Your task to perform on an android device: Go to Amazon Image 0: 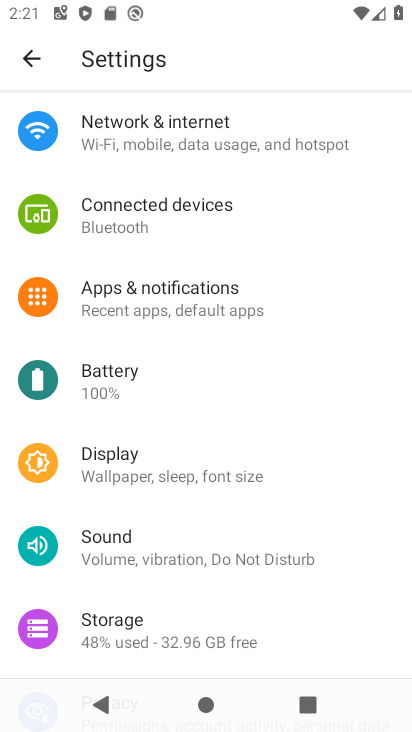
Step 0: press home button
Your task to perform on an android device: Go to Amazon Image 1: 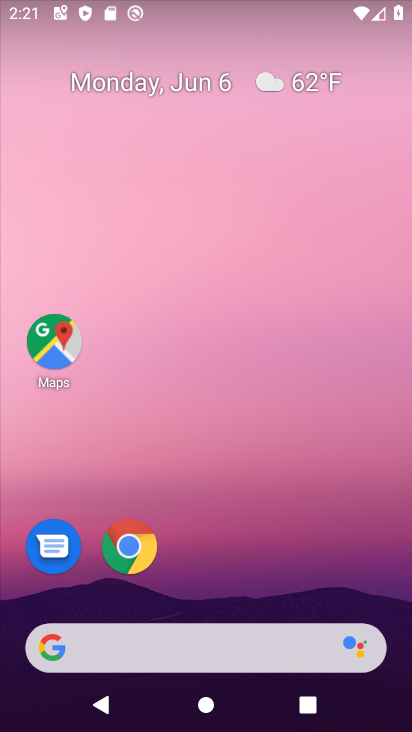
Step 1: click (139, 546)
Your task to perform on an android device: Go to Amazon Image 2: 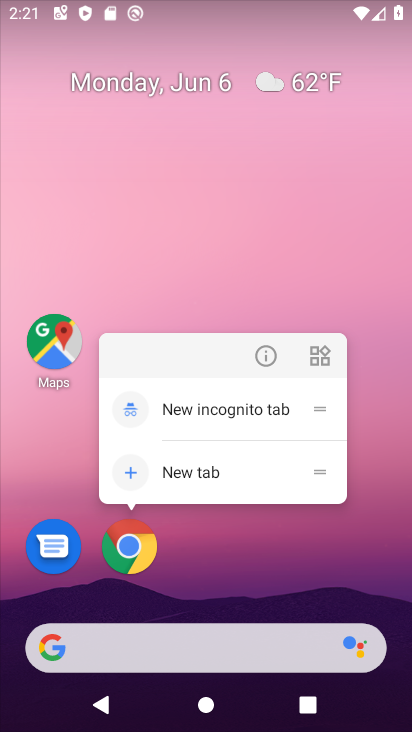
Step 2: click (127, 542)
Your task to perform on an android device: Go to Amazon Image 3: 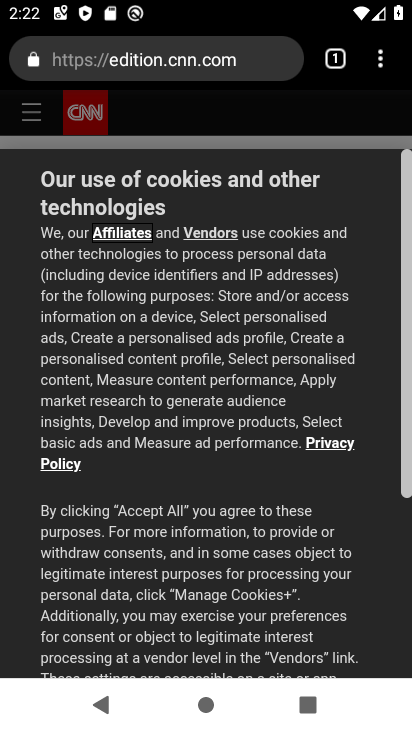
Step 3: click (243, 58)
Your task to perform on an android device: Go to Amazon Image 4: 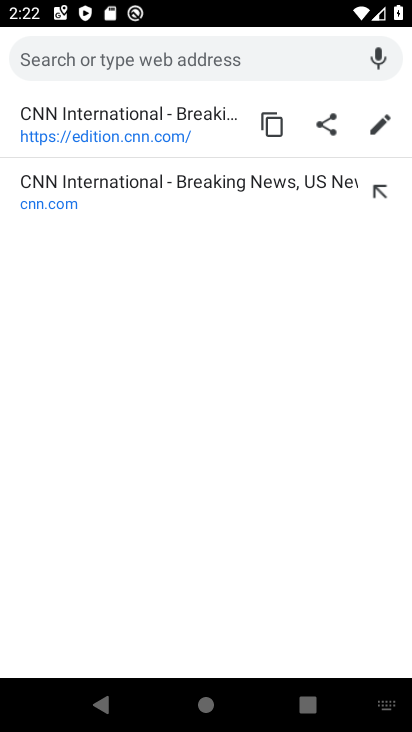
Step 4: type "amazon"
Your task to perform on an android device: Go to Amazon Image 5: 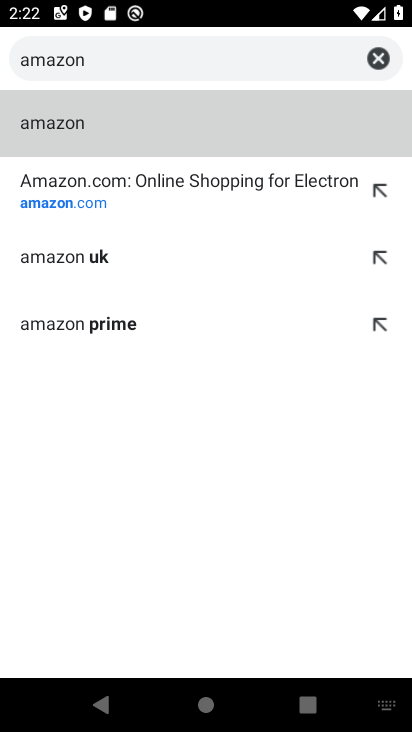
Step 5: click (55, 198)
Your task to perform on an android device: Go to Amazon Image 6: 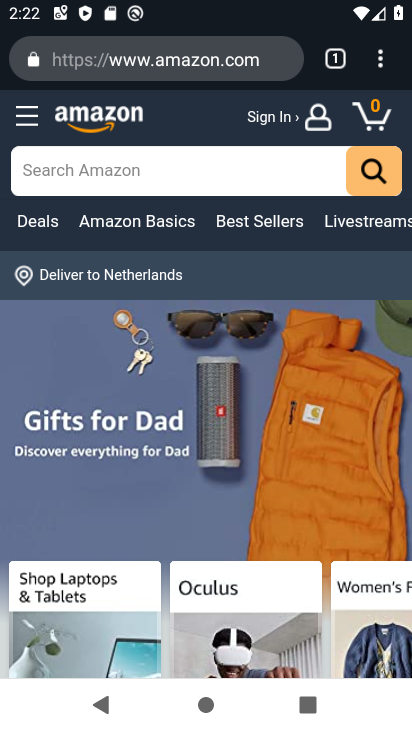
Step 6: task complete